Your task to perform on an android device: toggle airplane mode Image 0: 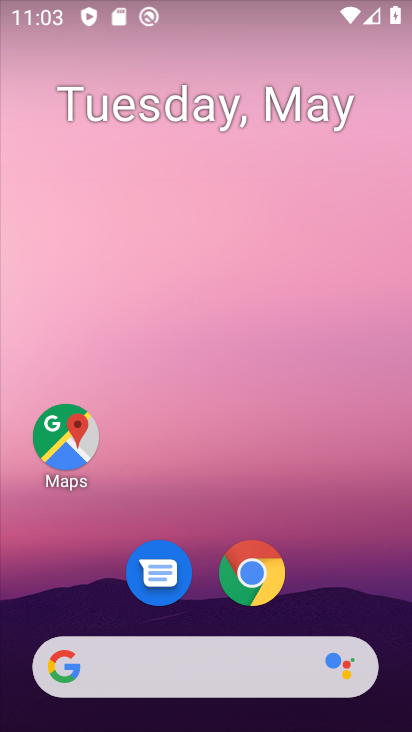
Step 0: press home button
Your task to perform on an android device: toggle airplane mode Image 1: 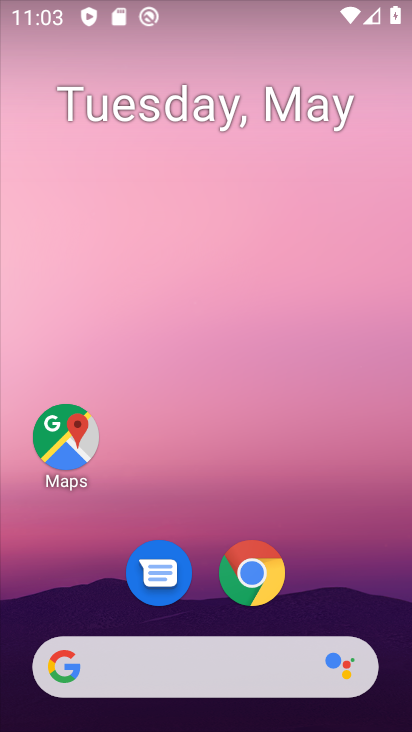
Step 1: drag from (182, 636) to (146, 304)
Your task to perform on an android device: toggle airplane mode Image 2: 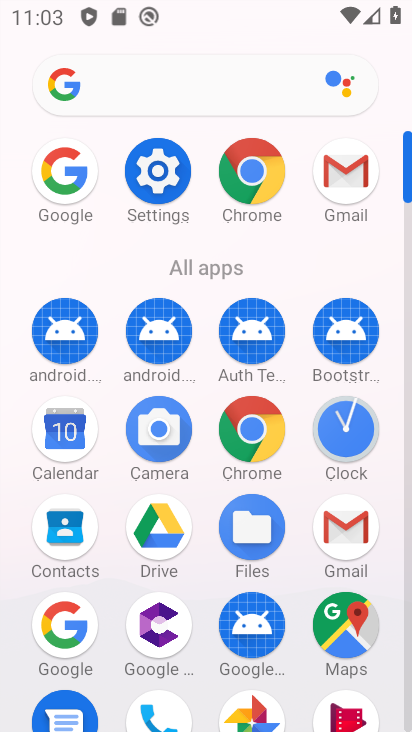
Step 2: click (169, 167)
Your task to perform on an android device: toggle airplane mode Image 3: 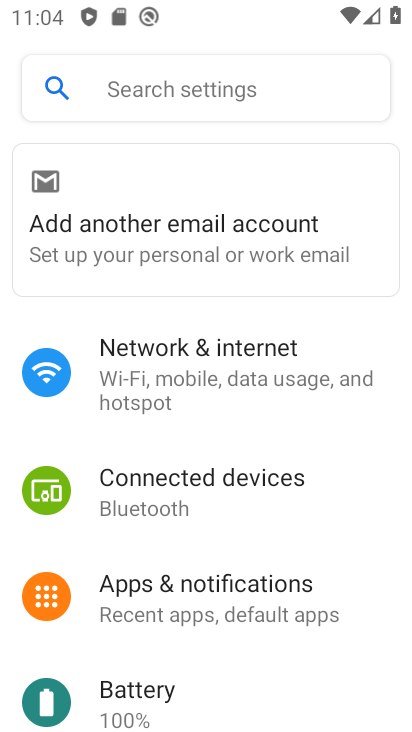
Step 3: click (214, 366)
Your task to perform on an android device: toggle airplane mode Image 4: 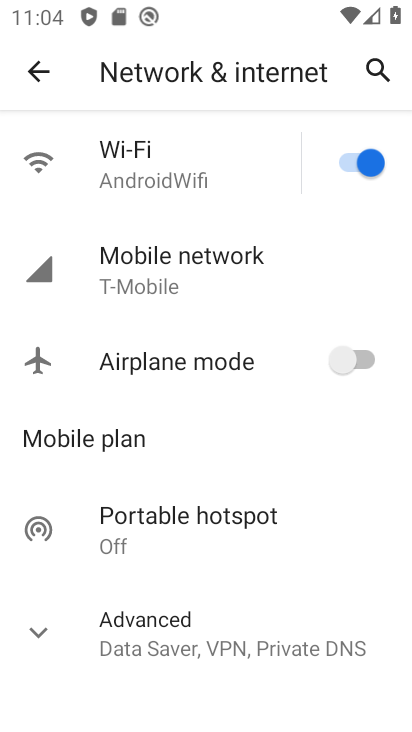
Step 4: click (359, 361)
Your task to perform on an android device: toggle airplane mode Image 5: 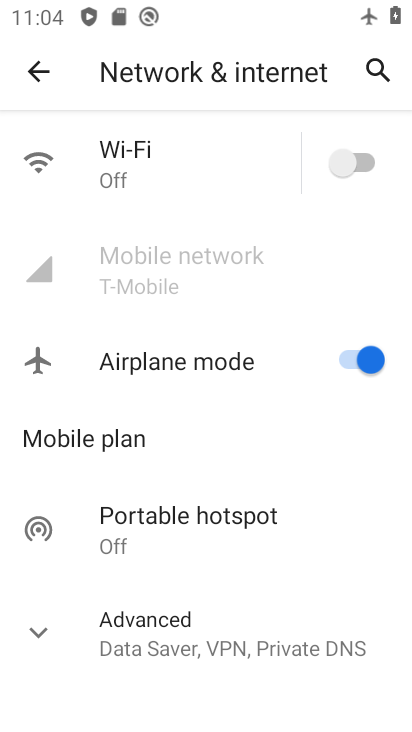
Step 5: task complete